Your task to perform on an android device: Show me recent news Image 0: 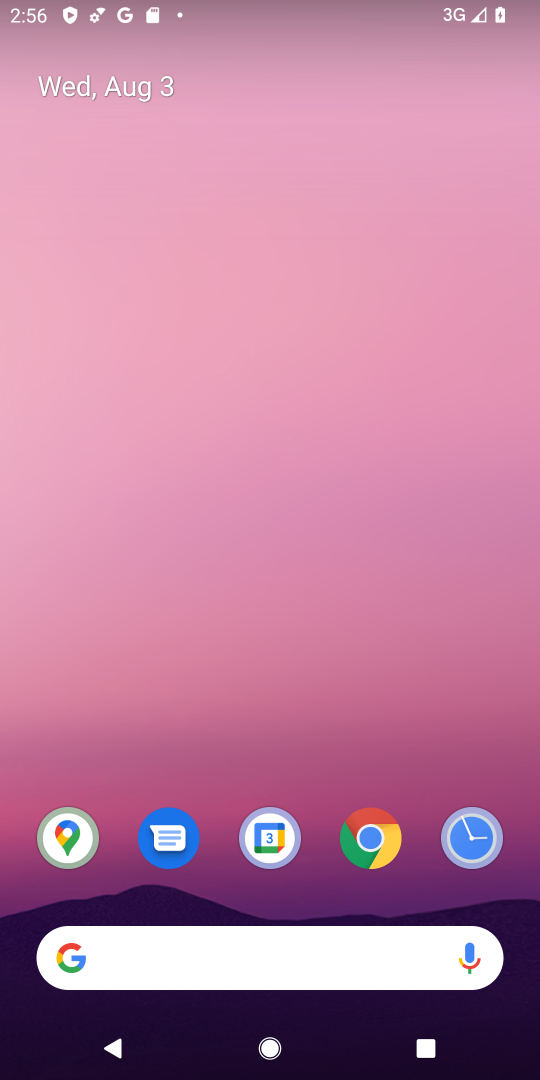
Step 0: click (228, 964)
Your task to perform on an android device: Show me recent news Image 1: 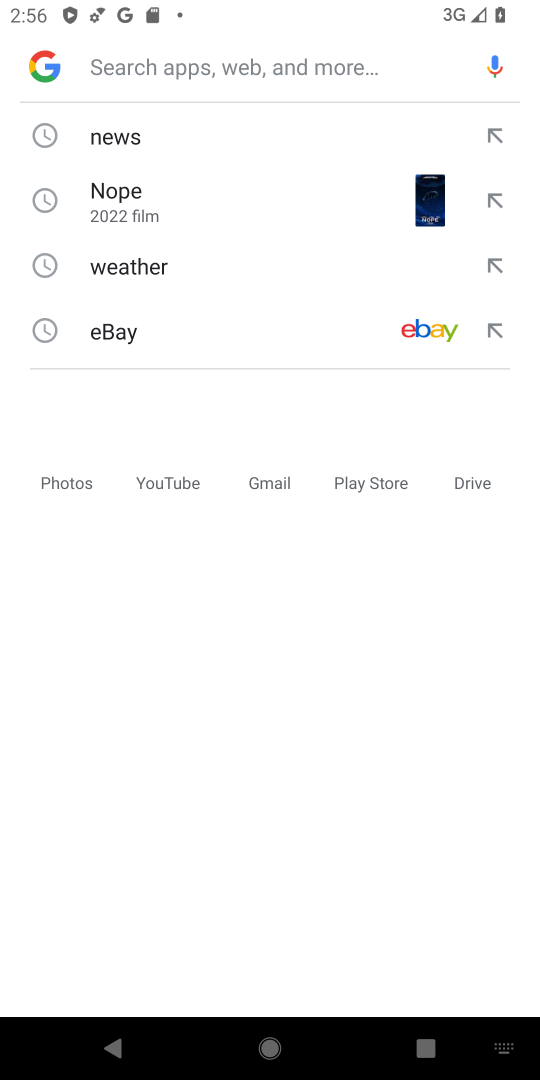
Step 1: type "recent news"
Your task to perform on an android device: Show me recent news Image 2: 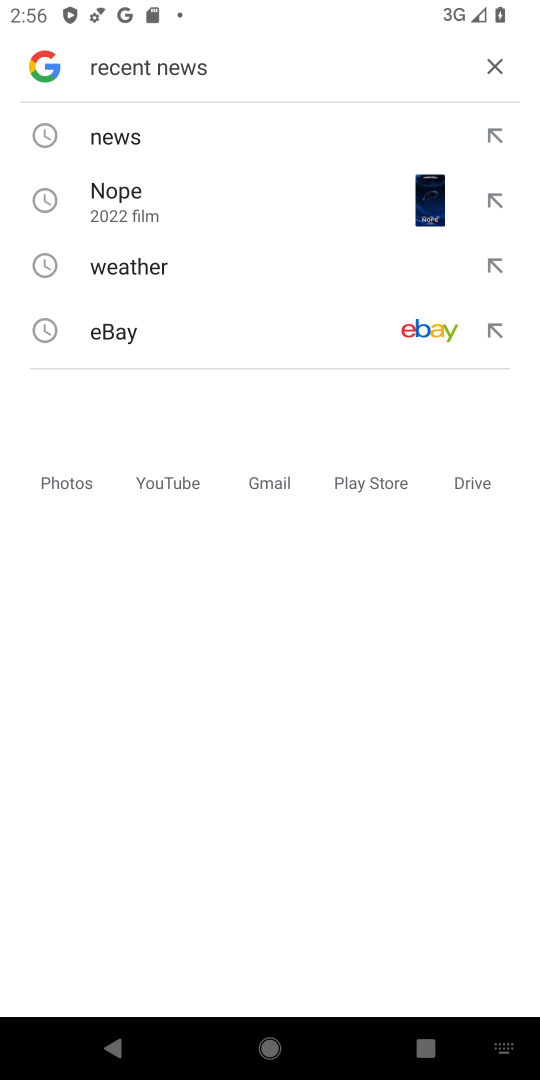
Step 2: click (143, 124)
Your task to perform on an android device: Show me recent news Image 3: 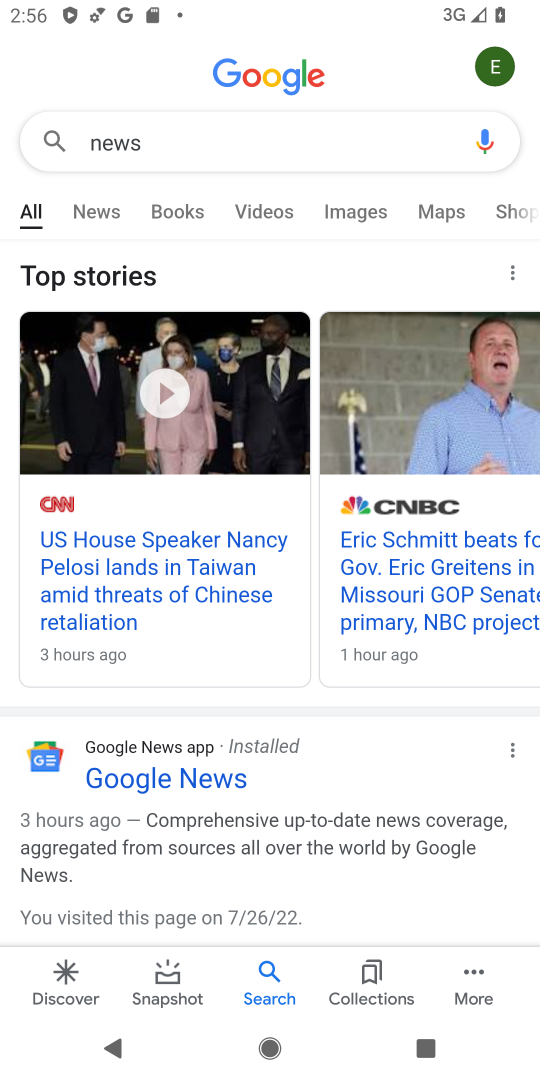
Step 3: click (94, 233)
Your task to perform on an android device: Show me recent news Image 4: 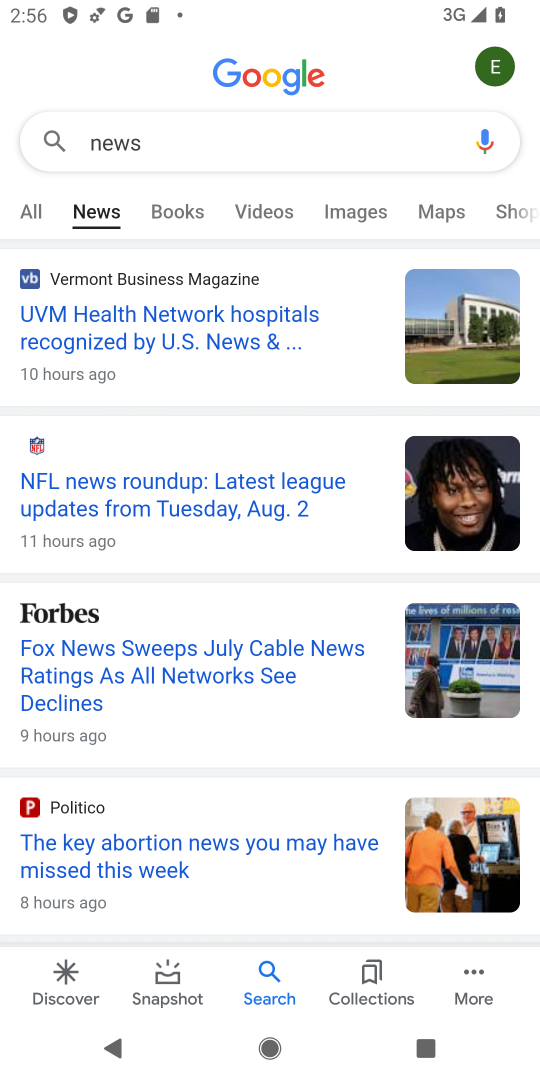
Step 4: task complete